Your task to perform on an android device: Go to notification settings Image 0: 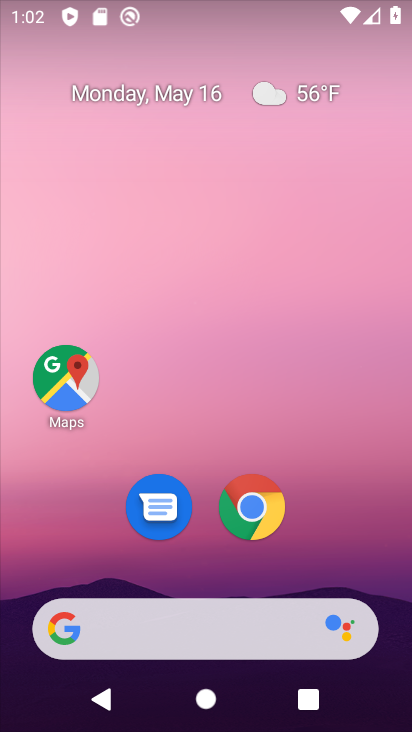
Step 0: drag from (198, 530) to (198, 227)
Your task to perform on an android device: Go to notification settings Image 1: 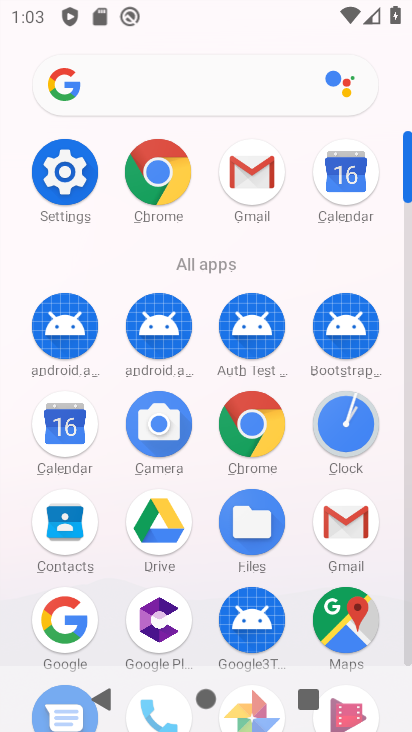
Step 1: click (87, 196)
Your task to perform on an android device: Go to notification settings Image 2: 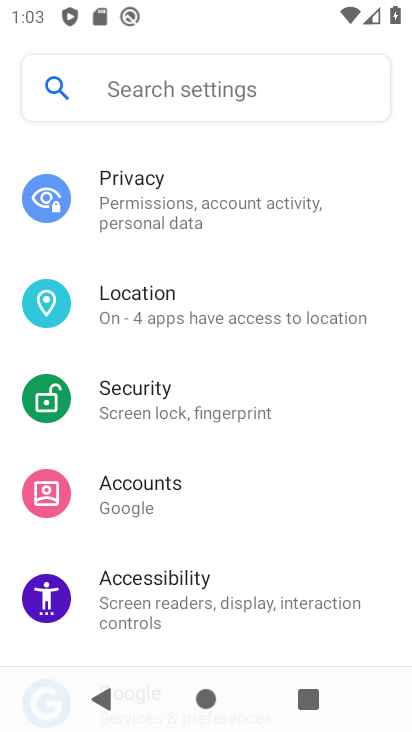
Step 2: drag from (186, 350) to (173, 604)
Your task to perform on an android device: Go to notification settings Image 3: 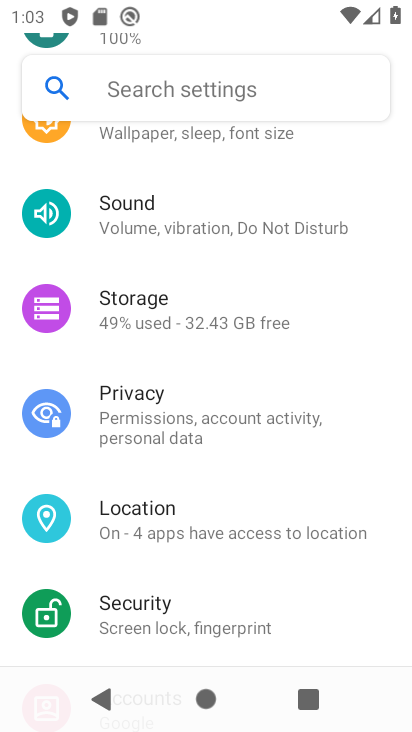
Step 3: drag from (210, 293) to (245, 529)
Your task to perform on an android device: Go to notification settings Image 4: 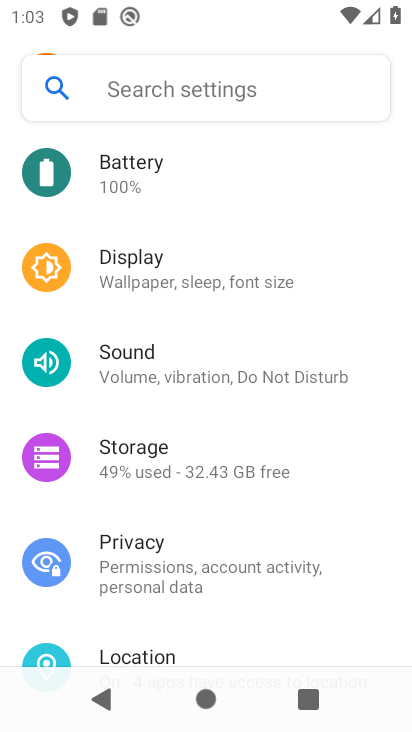
Step 4: drag from (213, 200) to (259, 457)
Your task to perform on an android device: Go to notification settings Image 5: 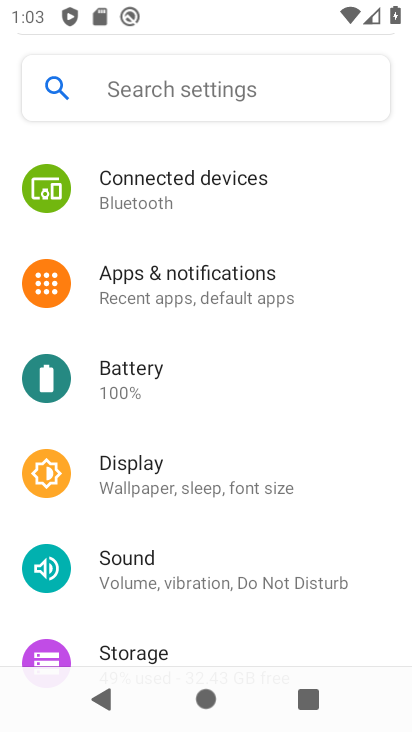
Step 5: click (214, 281)
Your task to perform on an android device: Go to notification settings Image 6: 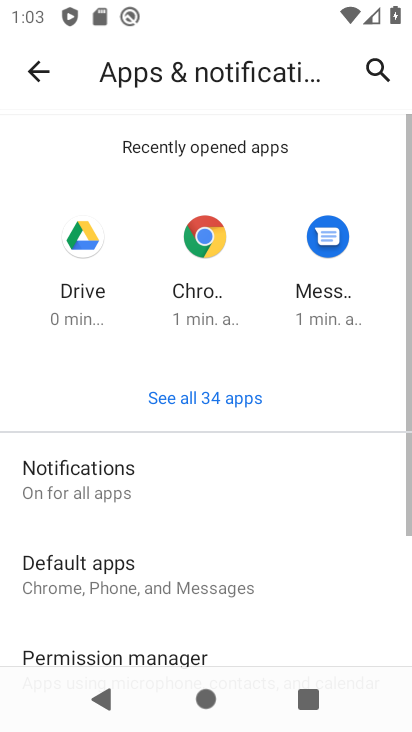
Step 6: click (151, 477)
Your task to perform on an android device: Go to notification settings Image 7: 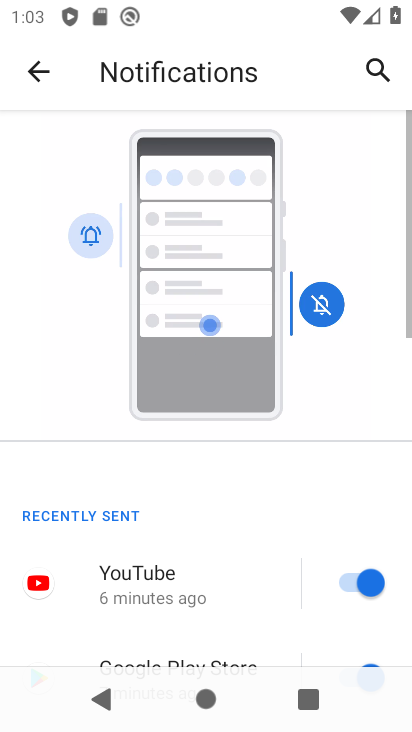
Step 7: task complete